Your task to perform on an android device: Empty the shopping cart on target. Add apple airpods to the cart on target Image 0: 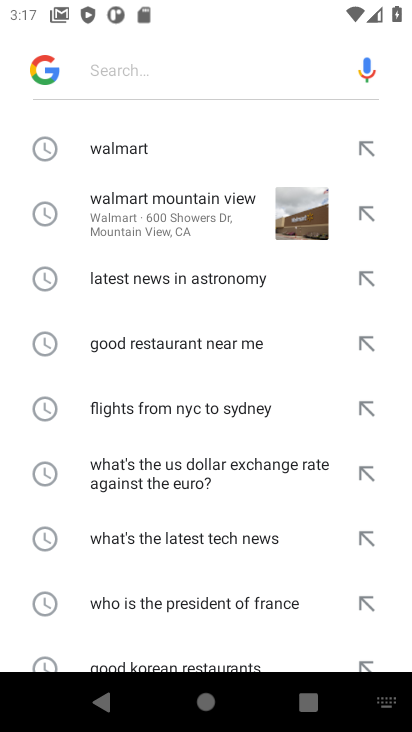
Step 0: press home button
Your task to perform on an android device: Empty the shopping cart on target. Add apple airpods to the cart on target Image 1: 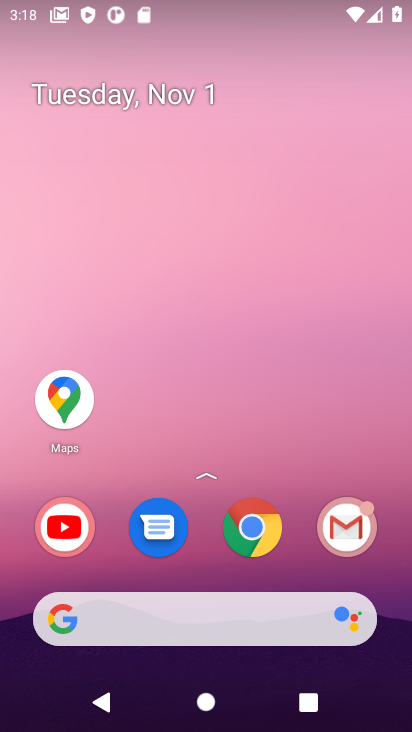
Step 1: click (201, 620)
Your task to perform on an android device: Empty the shopping cart on target. Add apple airpods to the cart on target Image 2: 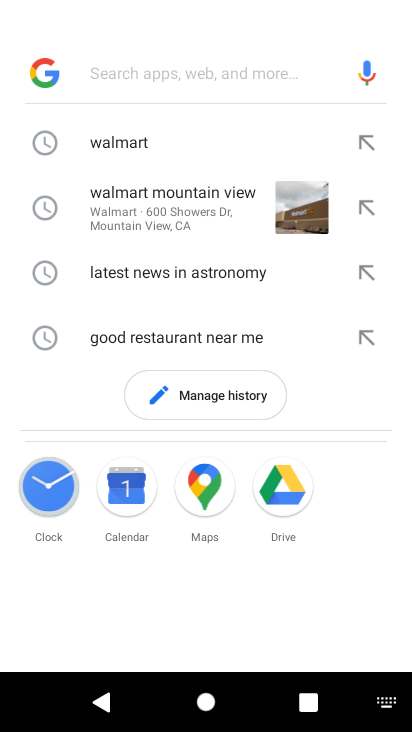
Step 2: type "target"
Your task to perform on an android device: Empty the shopping cart on target. Add apple airpods to the cart on target Image 3: 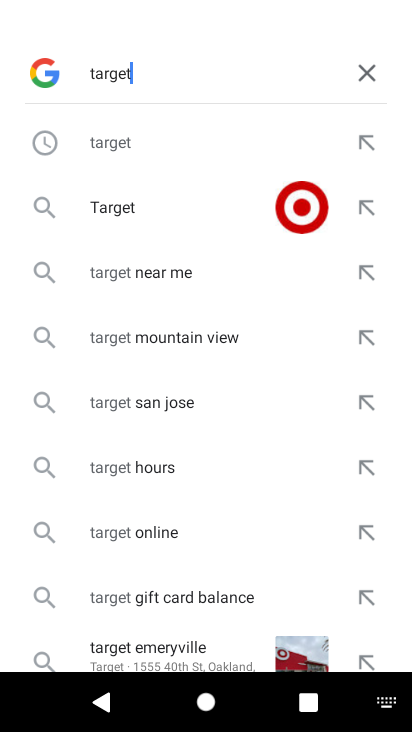
Step 3: click (167, 217)
Your task to perform on an android device: Empty the shopping cart on target. Add apple airpods to the cart on target Image 4: 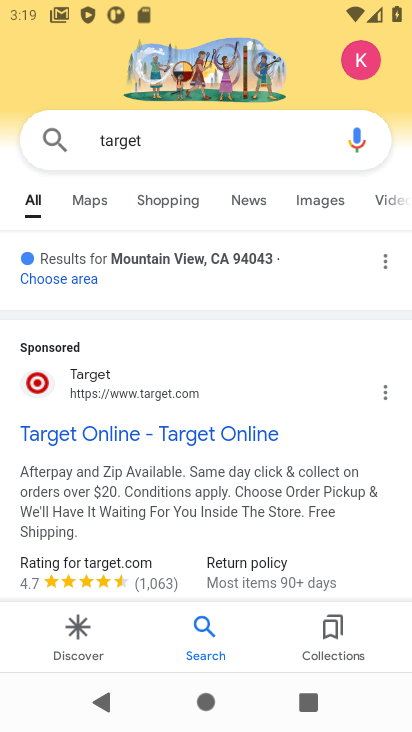
Step 4: click (100, 385)
Your task to perform on an android device: Empty the shopping cart on target. Add apple airpods to the cart on target Image 5: 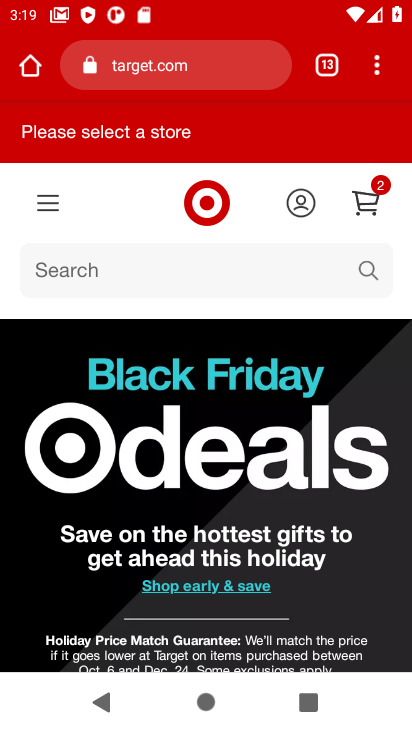
Step 5: click (239, 277)
Your task to perform on an android device: Empty the shopping cart on target. Add apple airpods to the cart on target Image 6: 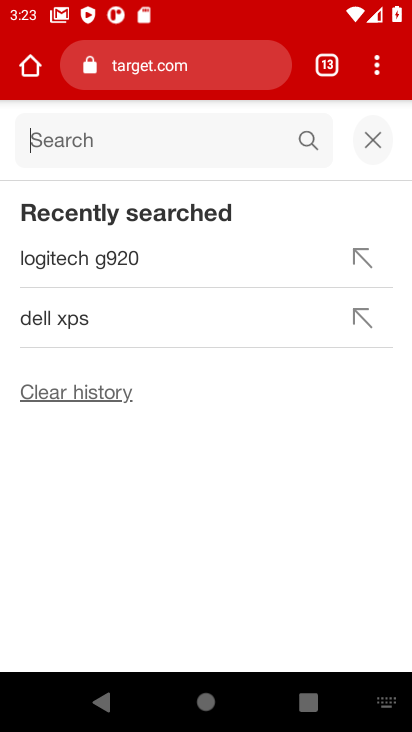
Step 6: press home button
Your task to perform on an android device: Empty the shopping cart on target. Add apple airpods to the cart on target Image 7: 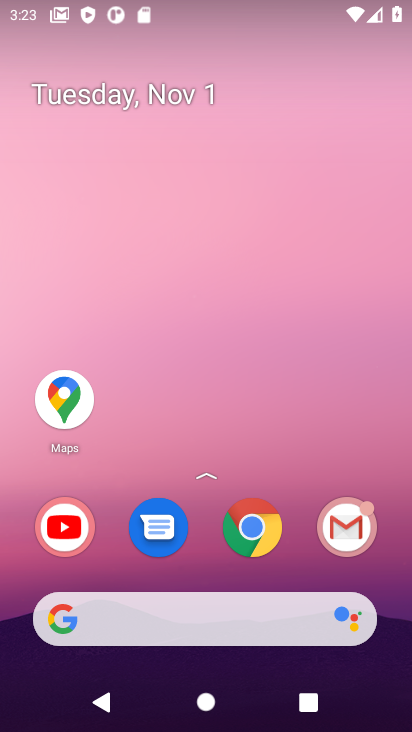
Step 7: click (202, 611)
Your task to perform on an android device: Empty the shopping cart on target. Add apple airpods to the cart on target Image 8: 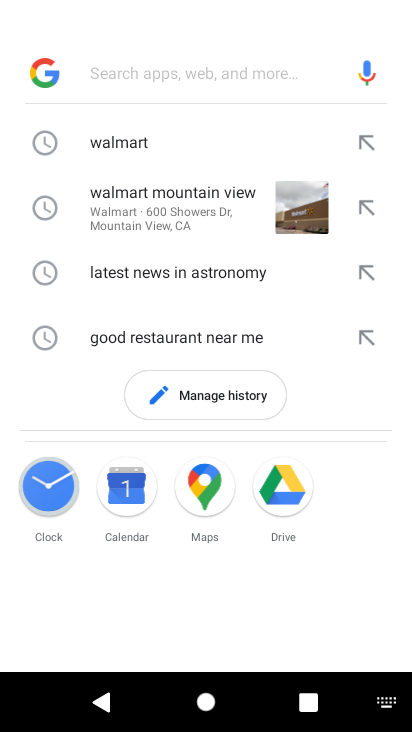
Step 8: type "target"
Your task to perform on an android device: Empty the shopping cart on target. Add apple airpods to the cart on target Image 9: 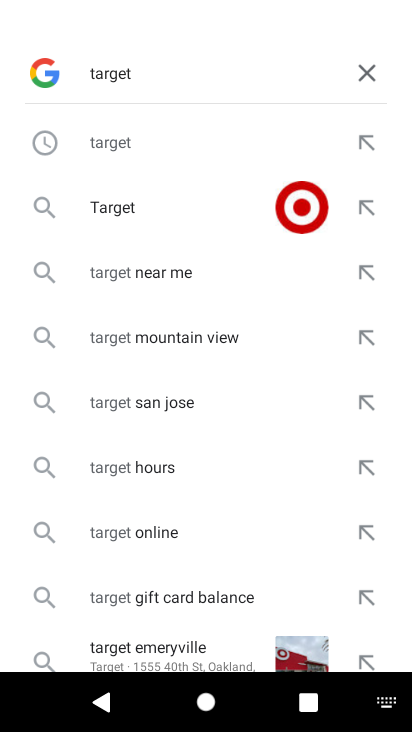
Step 9: click (191, 220)
Your task to perform on an android device: Empty the shopping cart on target. Add apple airpods to the cart on target Image 10: 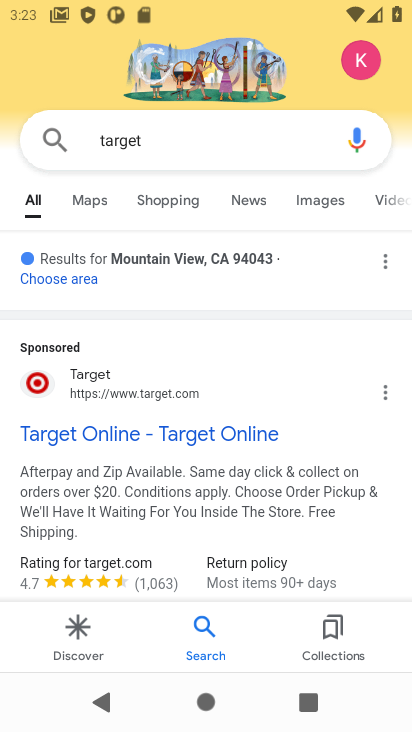
Step 10: click (90, 431)
Your task to perform on an android device: Empty the shopping cart on target. Add apple airpods to the cart on target Image 11: 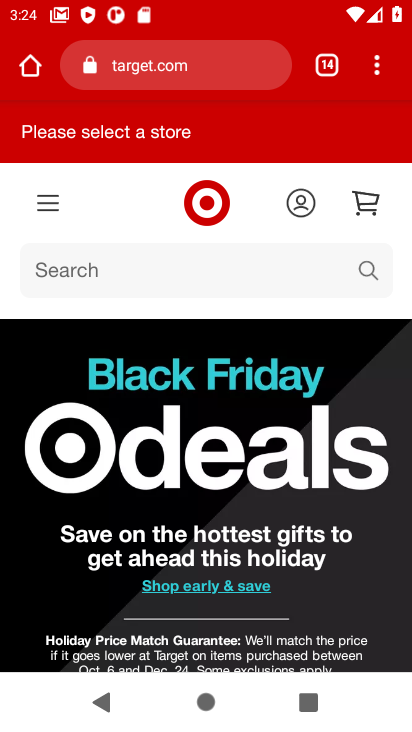
Step 11: click (244, 269)
Your task to perform on an android device: Empty the shopping cart on target. Add apple airpods to the cart on target Image 12: 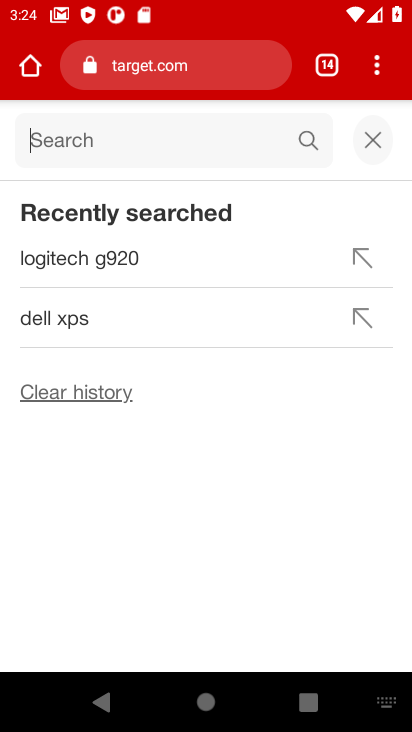
Step 12: type " apple airpods"
Your task to perform on an android device: Empty the shopping cart on target. Add apple airpods to the cart on target Image 13: 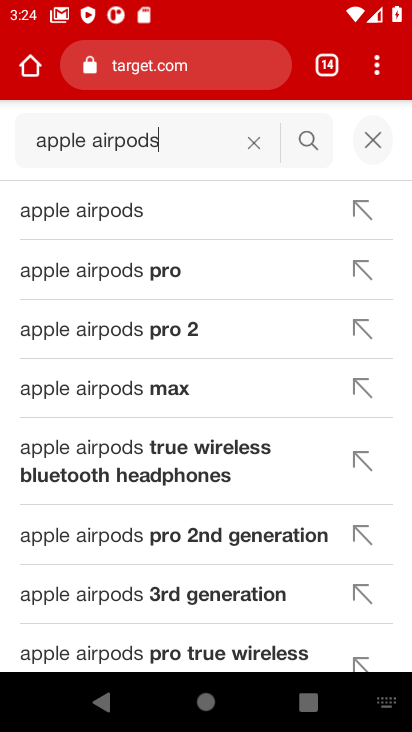
Step 13: click (63, 207)
Your task to perform on an android device: Empty the shopping cart on target. Add apple airpods to the cart on target Image 14: 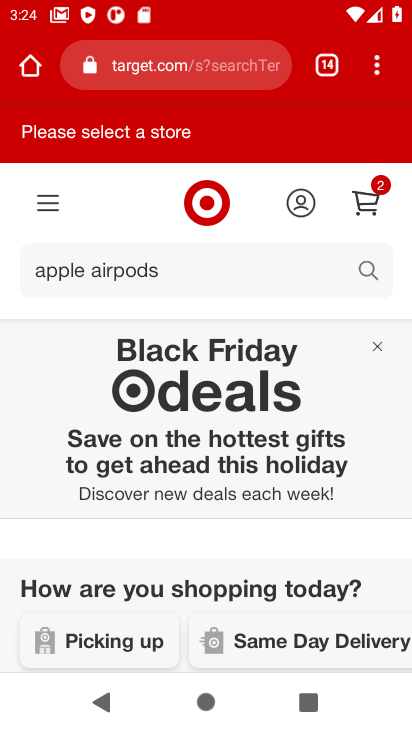
Step 14: drag from (149, 529) to (182, 315)
Your task to perform on an android device: Empty the shopping cart on target. Add apple airpods to the cart on target Image 15: 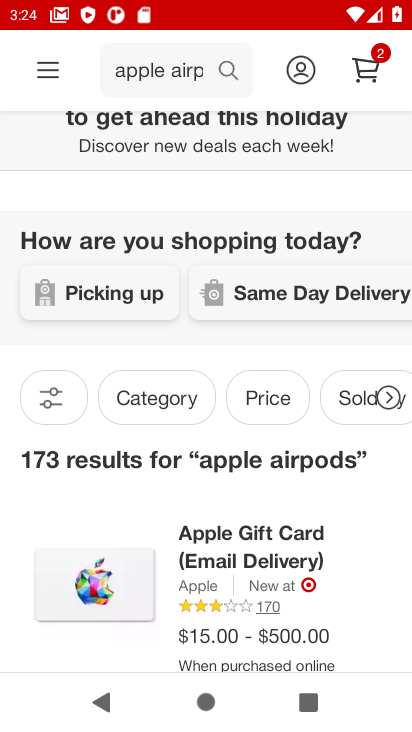
Step 15: drag from (244, 595) to (254, 436)
Your task to perform on an android device: Empty the shopping cart on target. Add apple airpods to the cart on target Image 16: 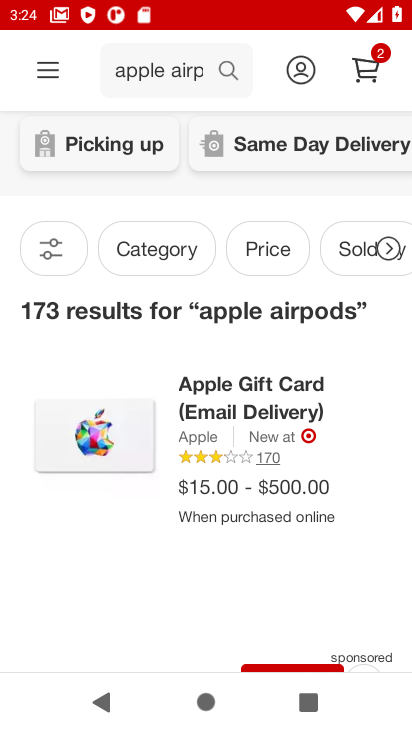
Step 16: drag from (267, 562) to (295, 342)
Your task to perform on an android device: Empty the shopping cart on target. Add apple airpods to the cart on target Image 17: 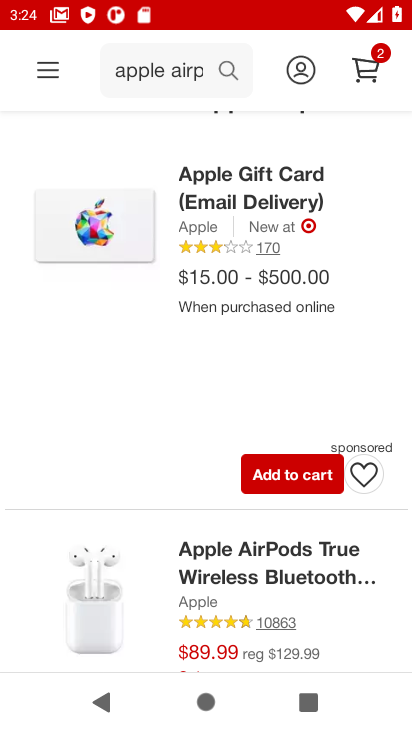
Step 17: click (146, 198)
Your task to perform on an android device: Empty the shopping cart on target. Add apple airpods to the cart on target Image 18: 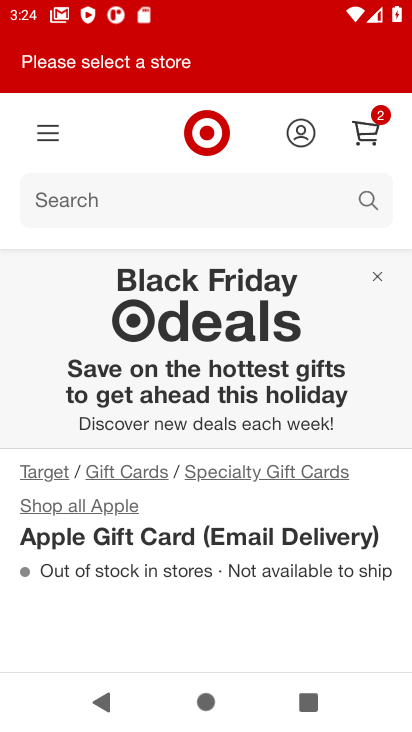
Step 18: drag from (245, 494) to (281, 297)
Your task to perform on an android device: Empty the shopping cart on target. Add apple airpods to the cart on target Image 19: 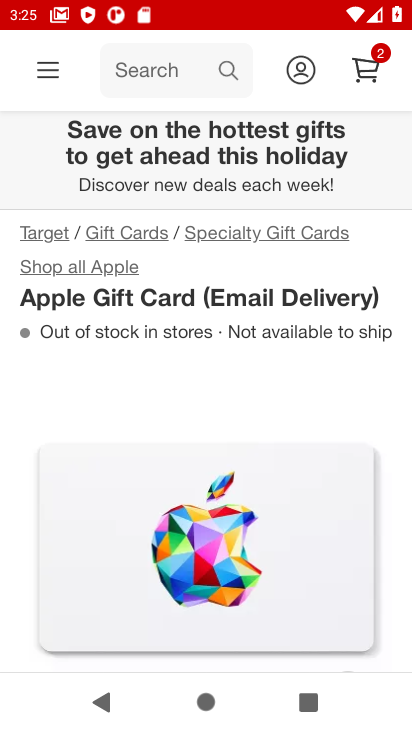
Step 19: drag from (244, 380) to (245, 254)
Your task to perform on an android device: Empty the shopping cart on target. Add apple airpods to the cart on target Image 20: 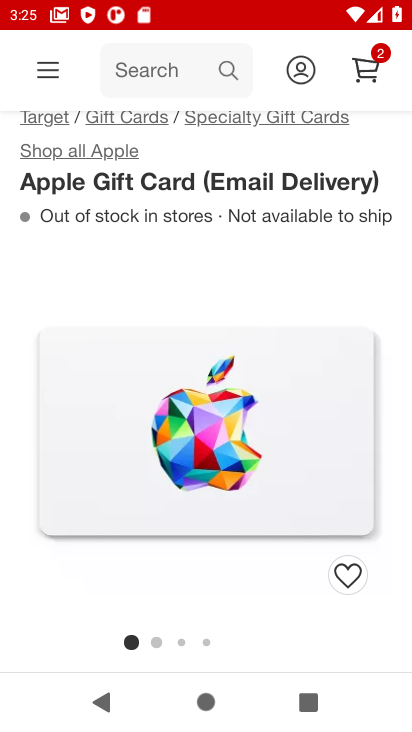
Step 20: drag from (223, 589) to (254, 370)
Your task to perform on an android device: Empty the shopping cart on target. Add apple airpods to the cart on target Image 21: 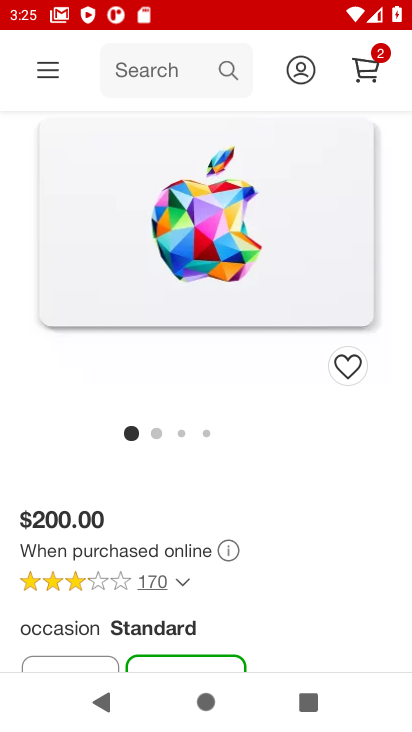
Step 21: drag from (217, 502) to (237, 298)
Your task to perform on an android device: Empty the shopping cart on target. Add apple airpods to the cart on target Image 22: 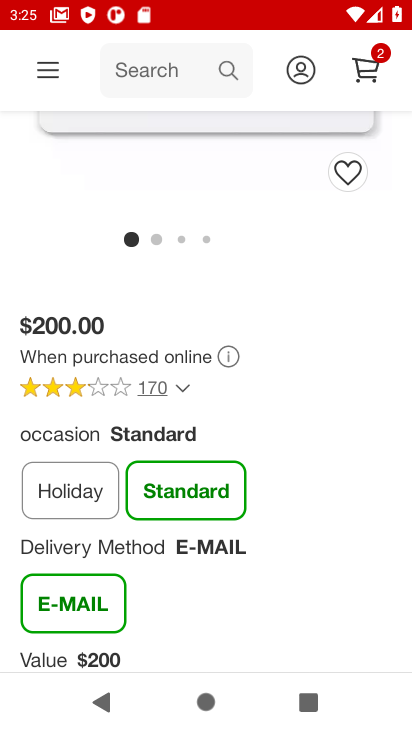
Step 22: drag from (248, 601) to (275, 444)
Your task to perform on an android device: Empty the shopping cart on target. Add apple airpods to the cart on target Image 23: 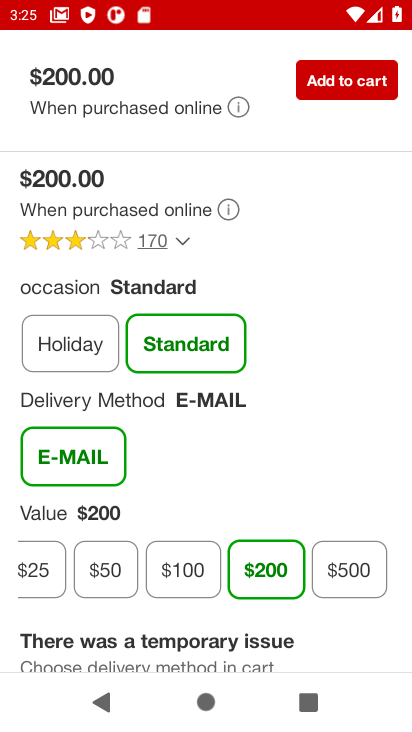
Step 23: click (275, 442)
Your task to perform on an android device: Empty the shopping cart on target. Add apple airpods to the cart on target Image 24: 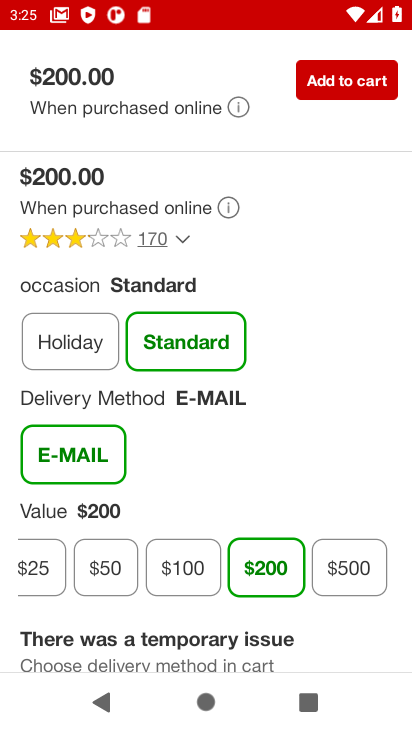
Step 24: click (322, 85)
Your task to perform on an android device: Empty the shopping cart on target. Add apple airpods to the cart on target Image 25: 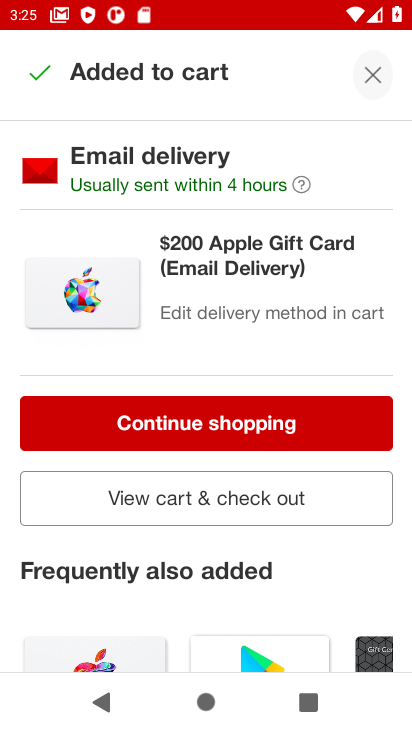
Step 25: click (202, 498)
Your task to perform on an android device: Empty the shopping cart on target. Add apple airpods to the cart on target Image 26: 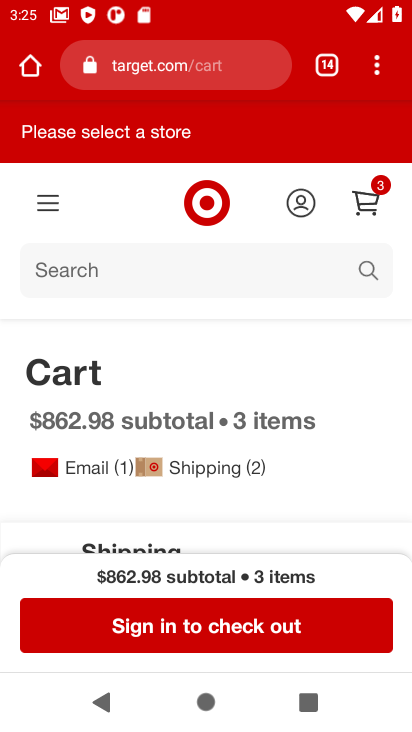
Step 26: task complete